Your task to perform on an android device: Open accessibility settings Image 0: 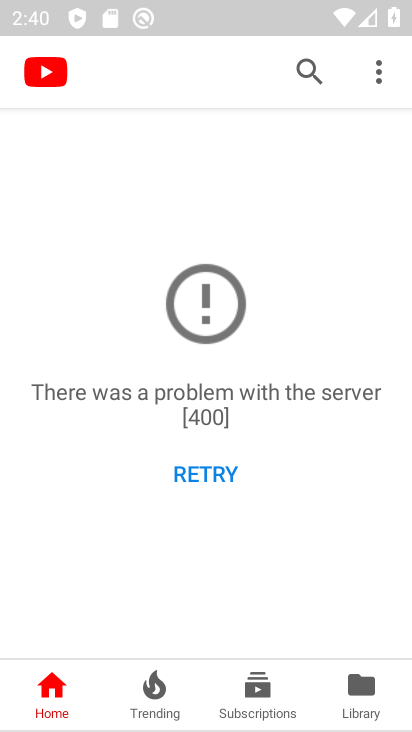
Step 0: press home button
Your task to perform on an android device: Open accessibility settings Image 1: 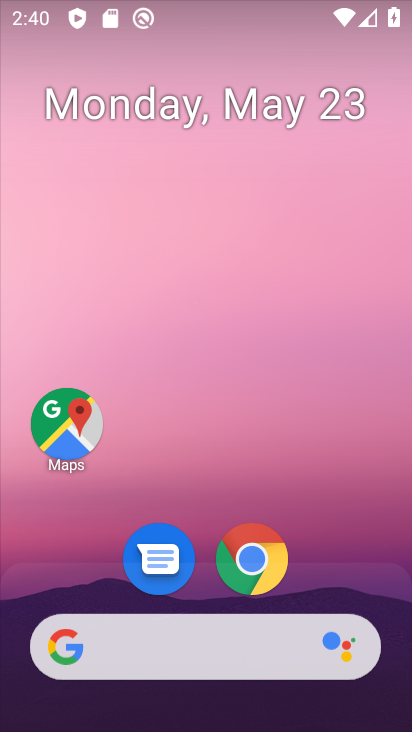
Step 1: drag from (251, 603) to (317, 10)
Your task to perform on an android device: Open accessibility settings Image 2: 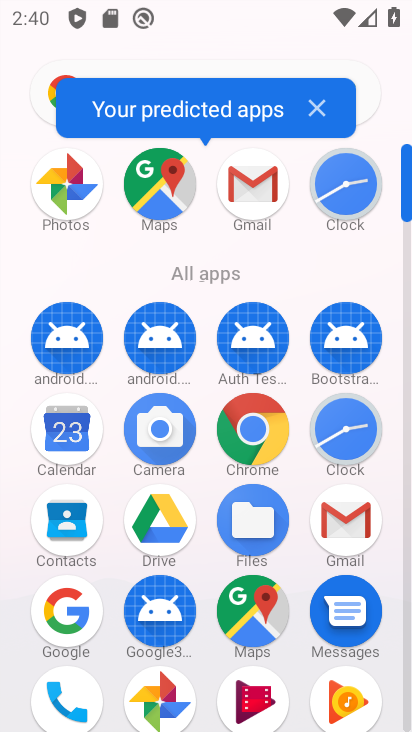
Step 2: drag from (235, 419) to (207, 8)
Your task to perform on an android device: Open accessibility settings Image 3: 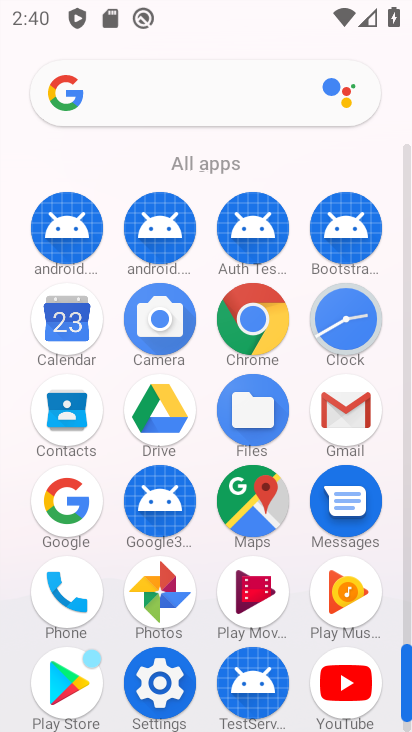
Step 3: click (169, 681)
Your task to perform on an android device: Open accessibility settings Image 4: 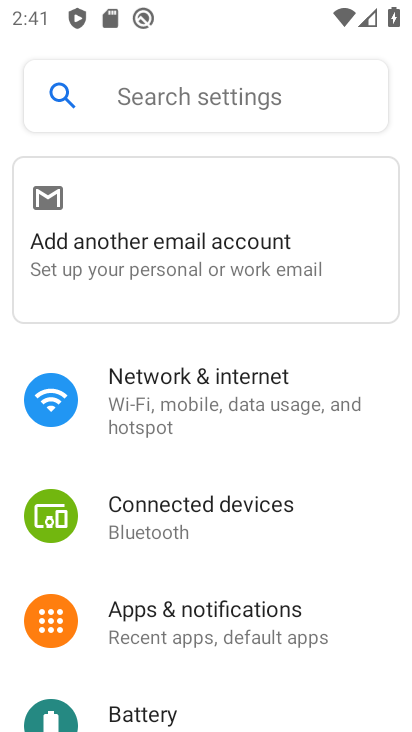
Step 4: drag from (181, 655) to (157, 165)
Your task to perform on an android device: Open accessibility settings Image 5: 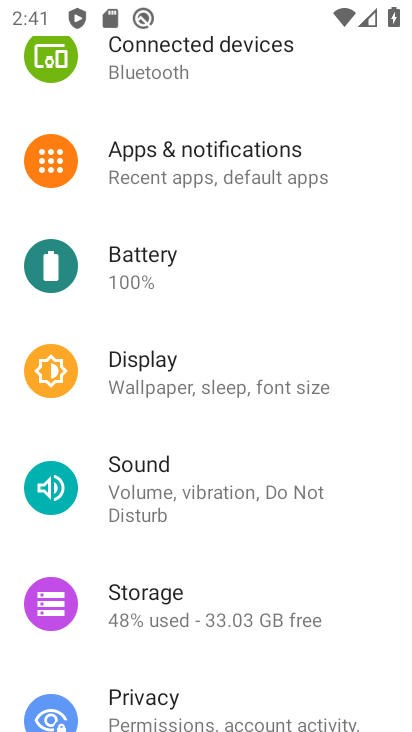
Step 5: drag from (149, 521) to (149, 115)
Your task to perform on an android device: Open accessibility settings Image 6: 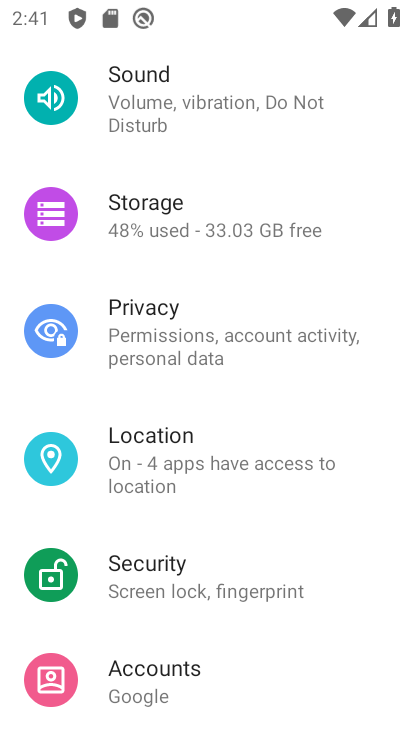
Step 6: drag from (188, 524) to (169, 162)
Your task to perform on an android device: Open accessibility settings Image 7: 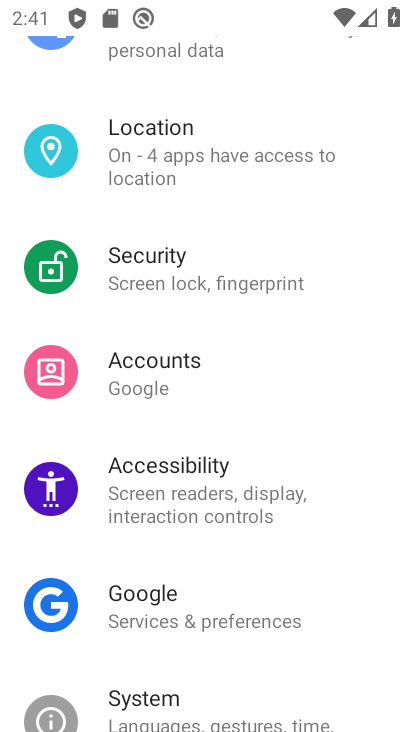
Step 7: click (221, 497)
Your task to perform on an android device: Open accessibility settings Image 8: 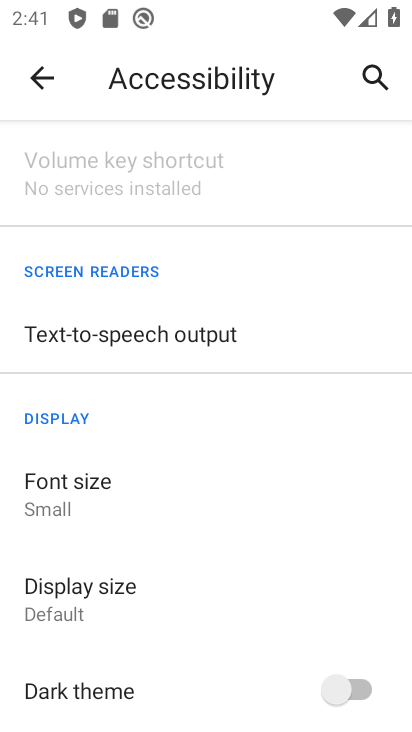
Step 8: task complete